Your task to perform on an android device: Go to privacy settings Image 0: 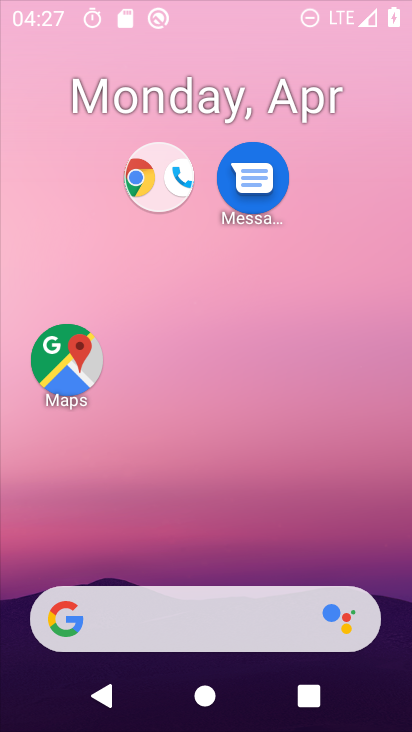
Step 0: drag from (377, 319) to (381, 98)
Your task to perform on an android device: Go to privacy settings Image 1: 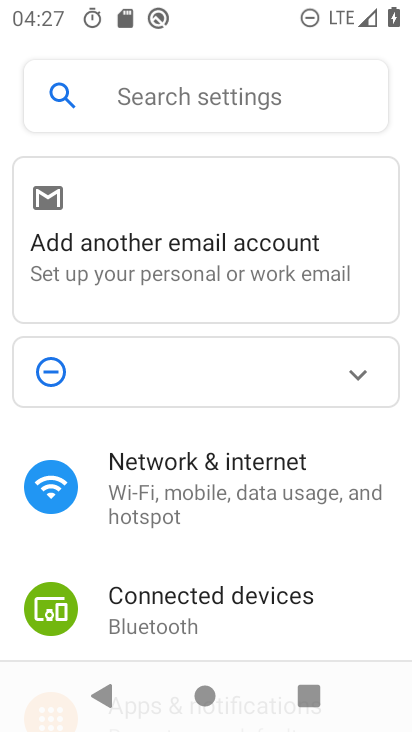
Step 1: press home button
Your task to perform on an android device: Go to privacy settings Image 2: 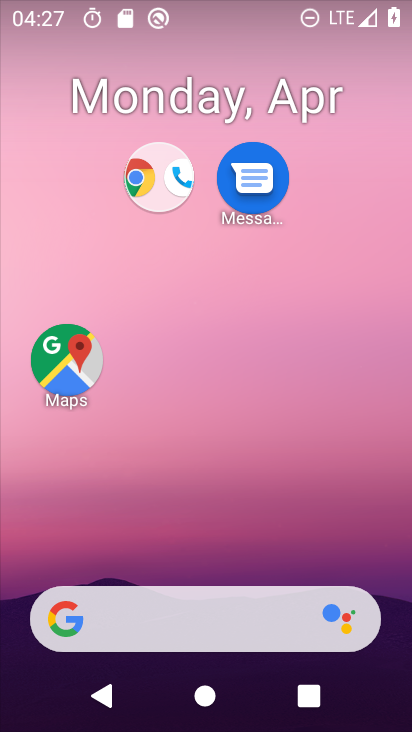
Step 2: drag from (339, 598) to (355, 112)
Your task to perform on an android device: Go to privacy settings Image 3: 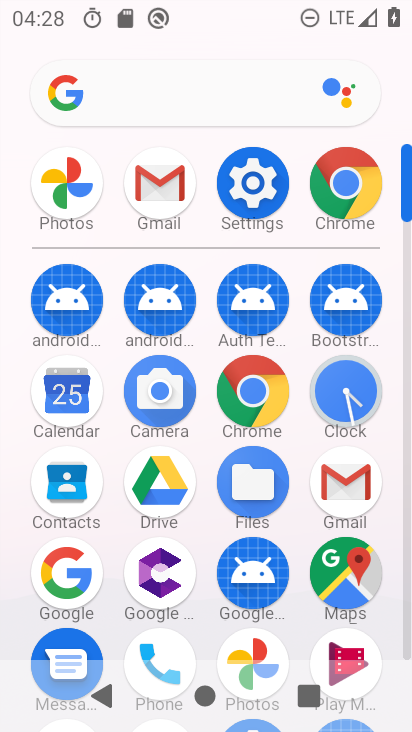
Step 3: drag from (301, 565) to (306, 140)
Your task to perform on an android device: Go to privacy settings Image 4: 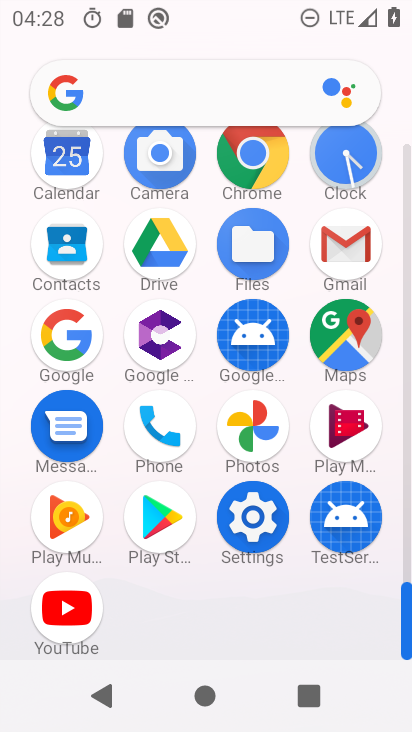
Step 4: click (260, 519)
Your task to perform on an android device: Go to privacy settings Image 5: 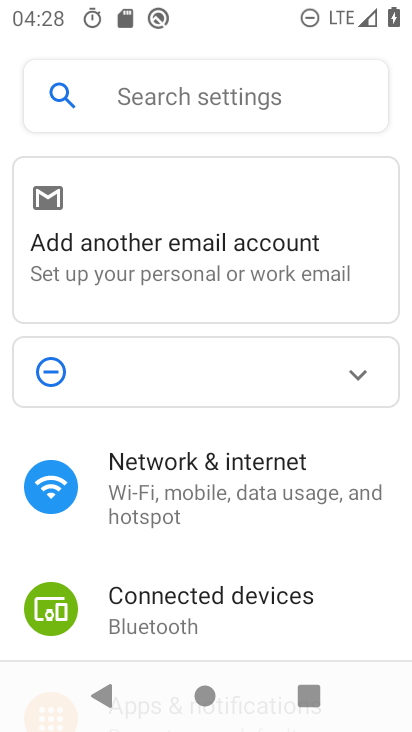
Step 5: drag from (312, 593) to (338, 1)
Your task to perform on an android device: Go to privacy settings Image 6: 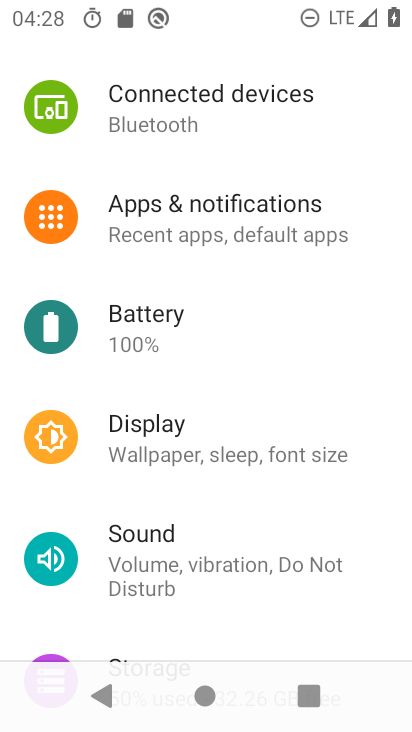
Step 6: drag from (307, 607) to (325, 99)
Your task to perform on an android device: Go to privacy settings Image 7: 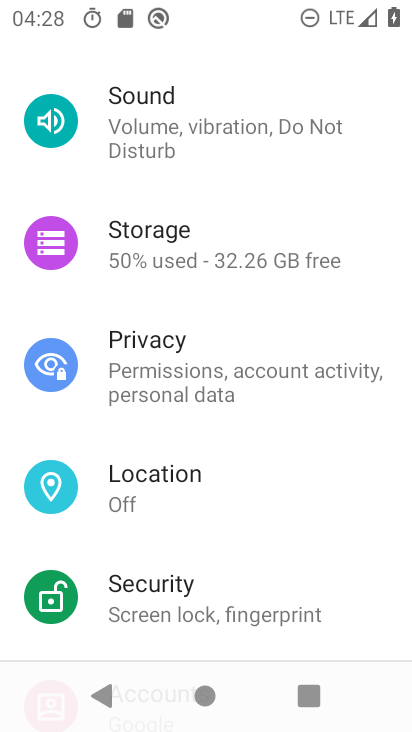
Step 7: click (240, 386)
Your task to perform on an android device: Go to privacy settings Image 8: 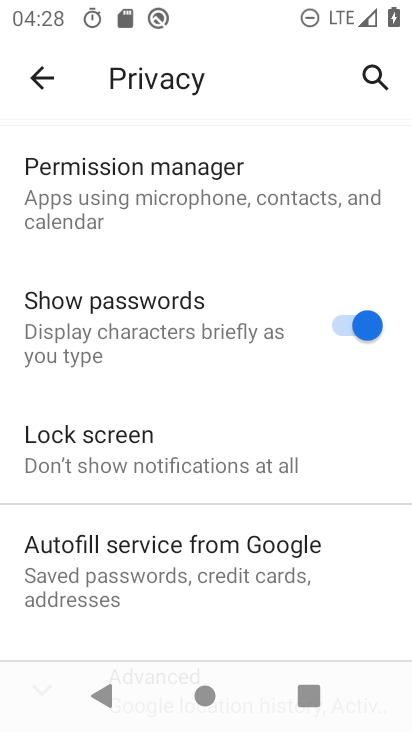
Step 8: task complete